Your task to perform on an android device: Go to Google Image 0: 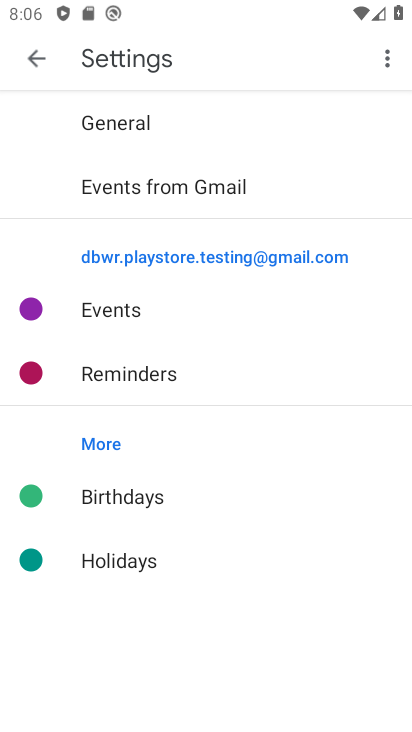
Step 0: press home button
Your task to perform on an android device: Go to Google Image 1: 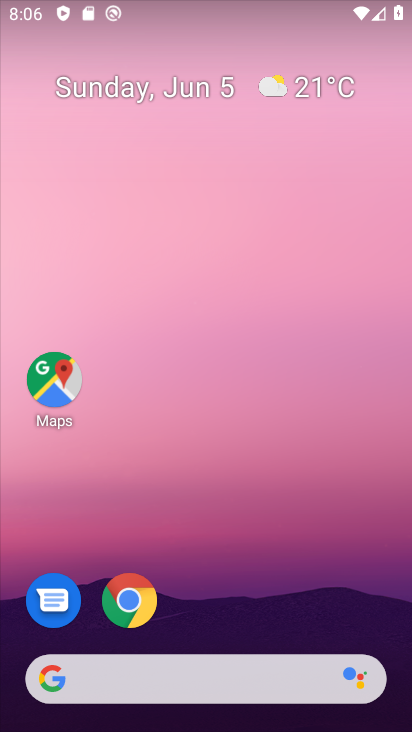
Step 1: drag from (242, 619) to (313, 10)
Your task to perform on an android device: Go to Google Image 2: 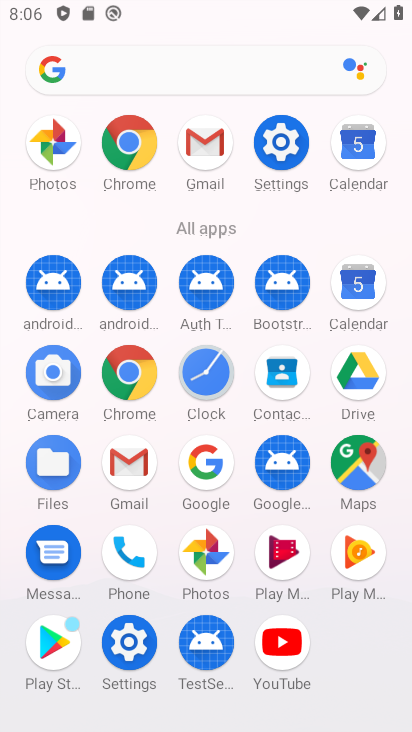
Step 2: click (198, 471)
Your task to perform on an android device: Go to Google Image 3: 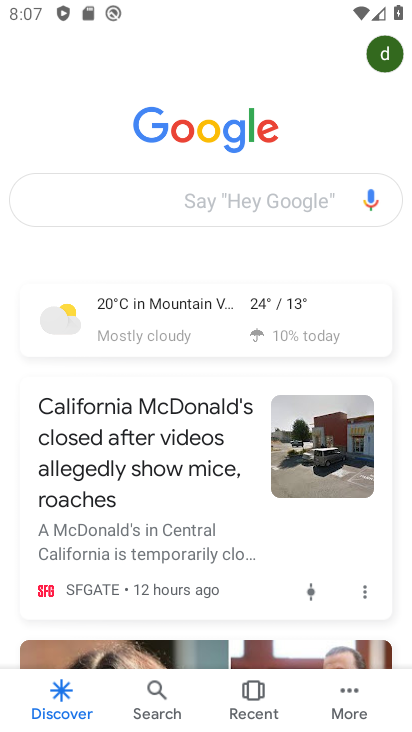
Step 3: task complete